Your task to perform on an android device: Open privacy settings Image 0: 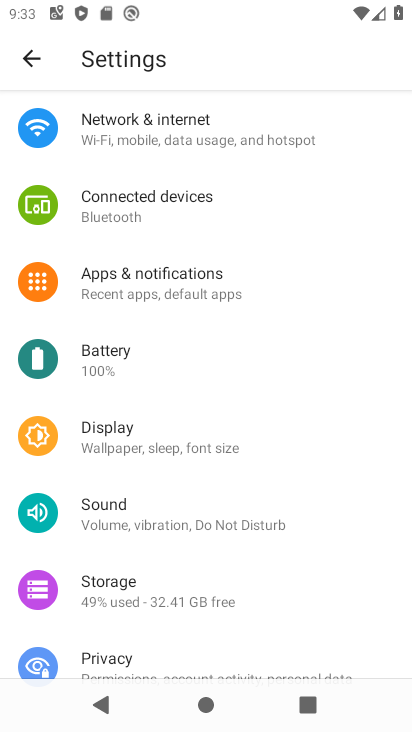
Step 0: drag from (197, 559) to (189, 360)
Your task to perform on an android device: Open privacy settings Image 1: 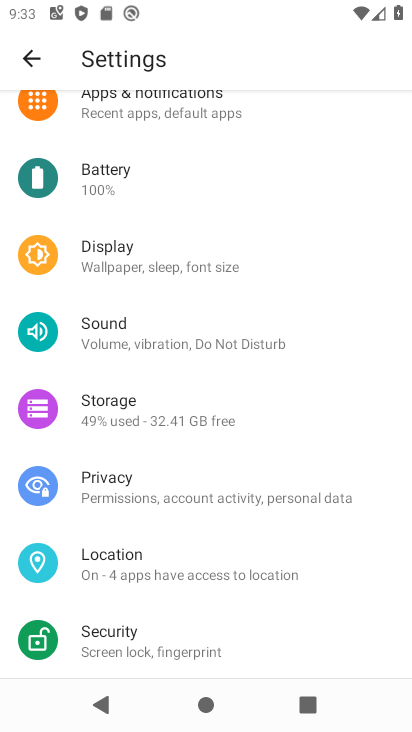
Step 1: click (164, 473)
Your task to perform on an android device: Open privacy settings Image 2: 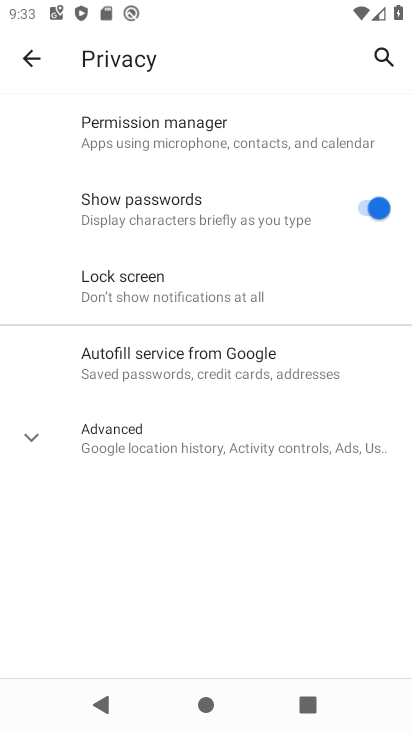
Step 2: task complete